Your task to perform on an android device: Toggle the flashlight Image 0: 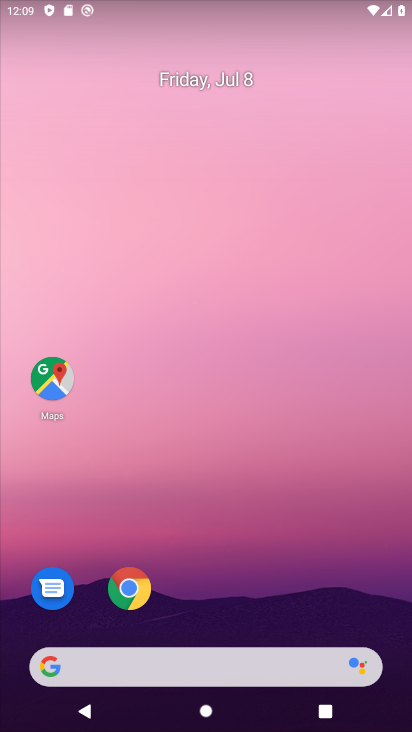
Step 0: press home button
Your task to perform on an android device: Toggle the flashlight Image 1: 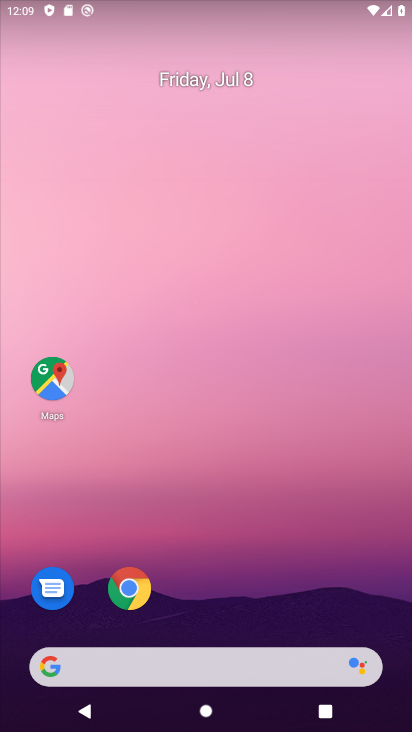
Step 1: click (222, 340)
Your task to perform on an android device: Toggle the flashlight Image 2: 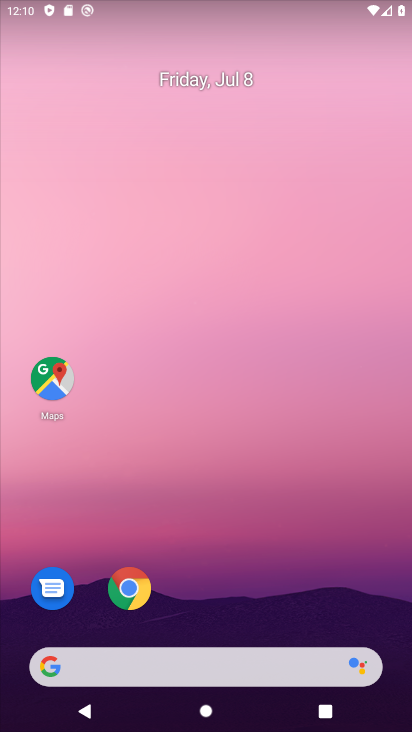
Step 2: task complete